Your task to perform on an android device: Go to Google maps Image 0: 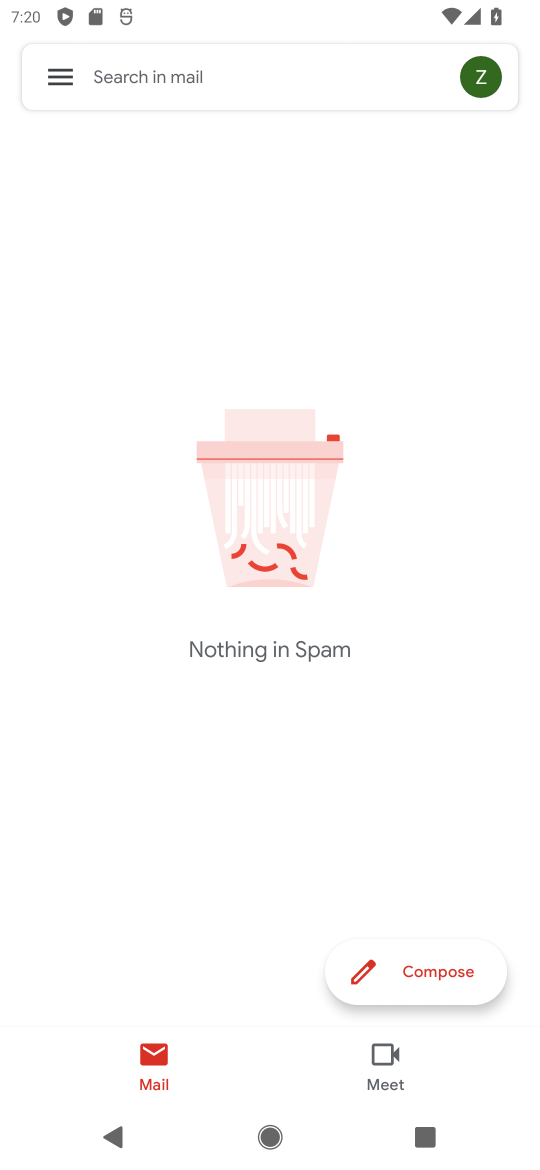
Step 0: press home button
Your task to perform on an android device: Go to Google maps Image 1: 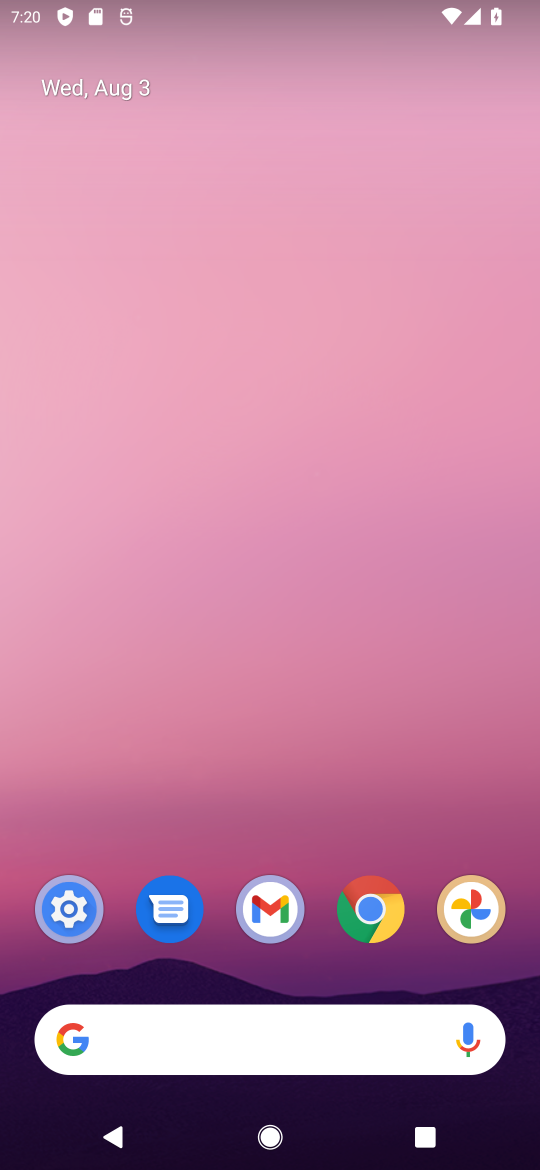
Step 1: drag from (389, 802) to (408, 199)
Your task to perform on an android device: Go to Google maps Image 2: 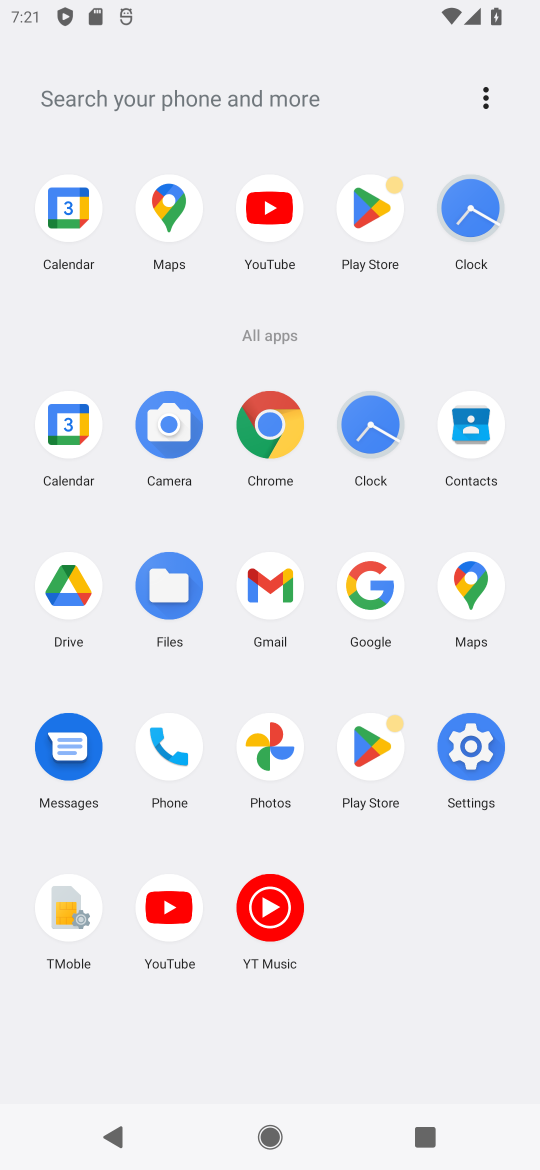
Step 2: click (472, 595)
Your task to perform on an android device: Go to Google maps Image 3: 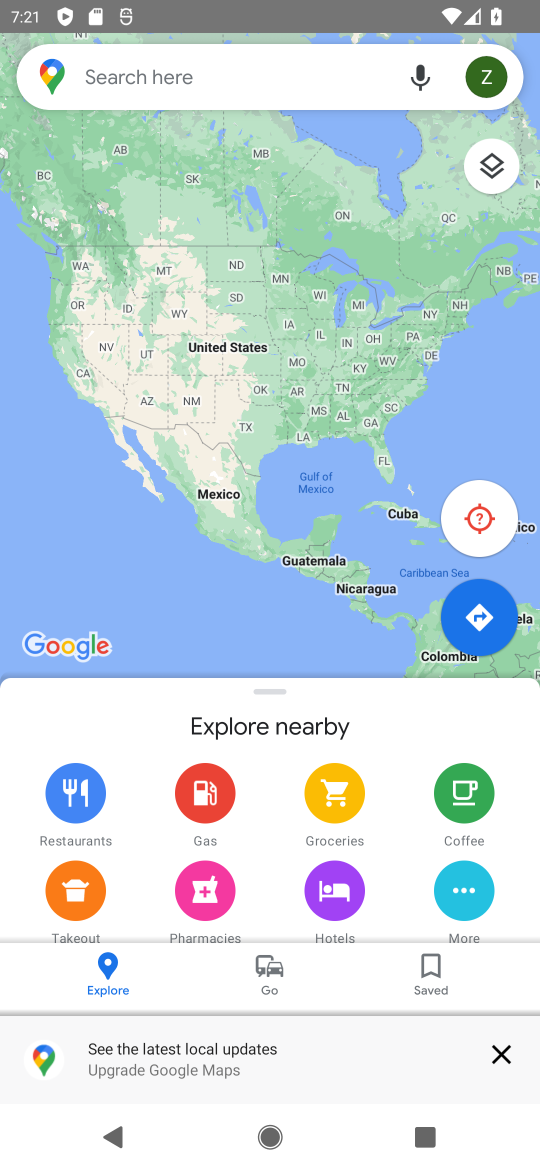
Step 3: task complete